Your task to perform on an android device: see sites visited before in the chrome app Image 0: 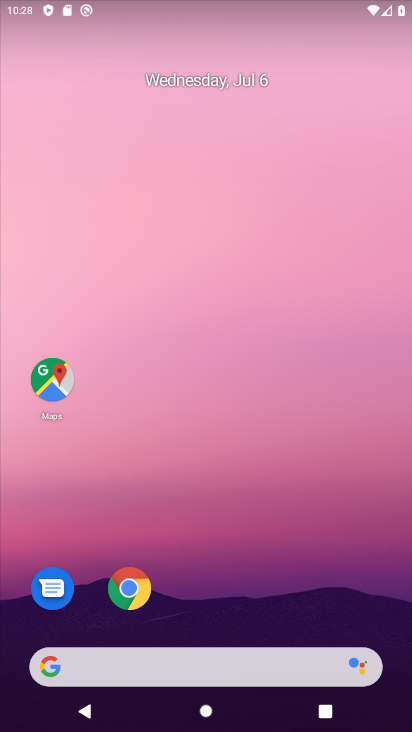
Step 0: click (96, 185)
Your task to perform on an android device: see sites visited before in the chrome app Image 1: 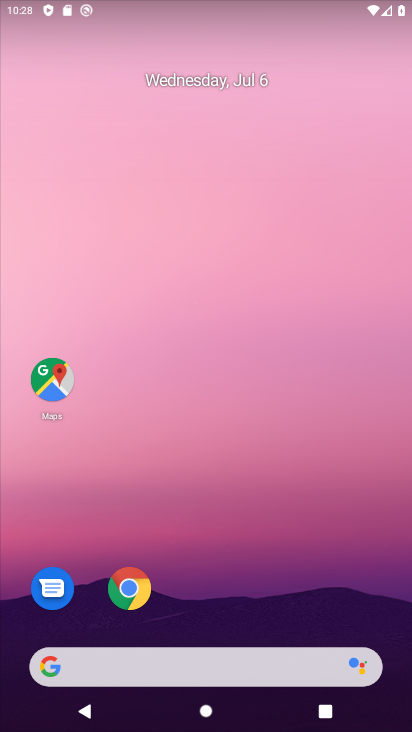
Step 1: drag from (311, 639) to (77, 14)
Your task to perform on an android device: see sites visited before in the chrome app Image 2: 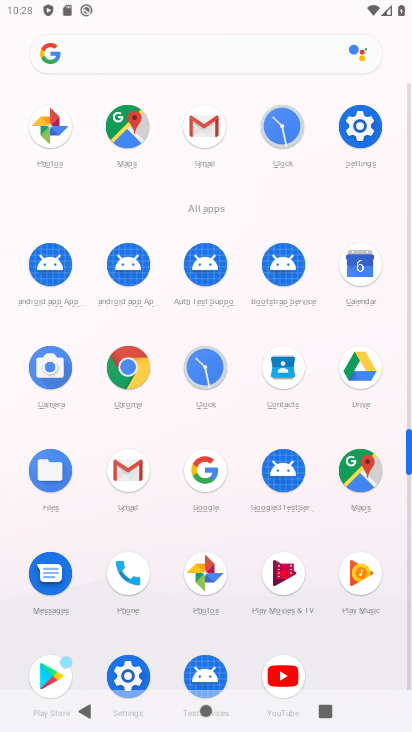
Step 2: drag from (213, 486) to (159, 238)
Your task to perform on an android device: see sites visited before in the chrome app Image 3: 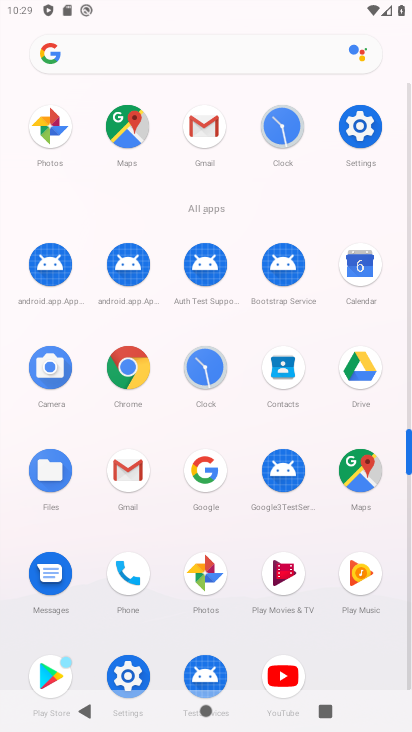
Step 3: click (127, 378)
Your task to perform on an android device: see sites visited before in the chrome app Image 4: 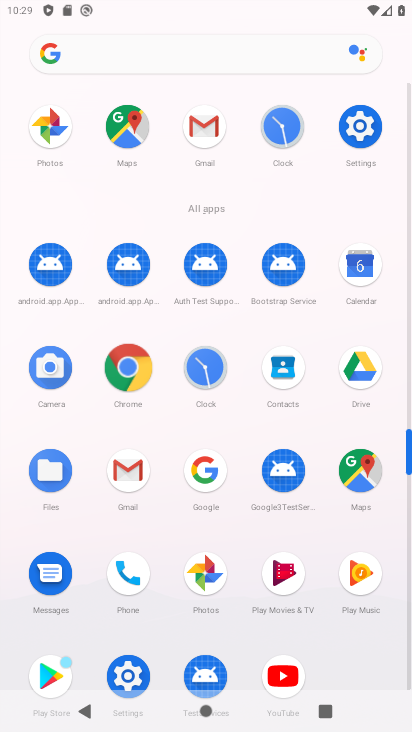
Step 4: click (123, 374)
Your task to perform on an android device: see sites visited before in the chrome app Image 5: 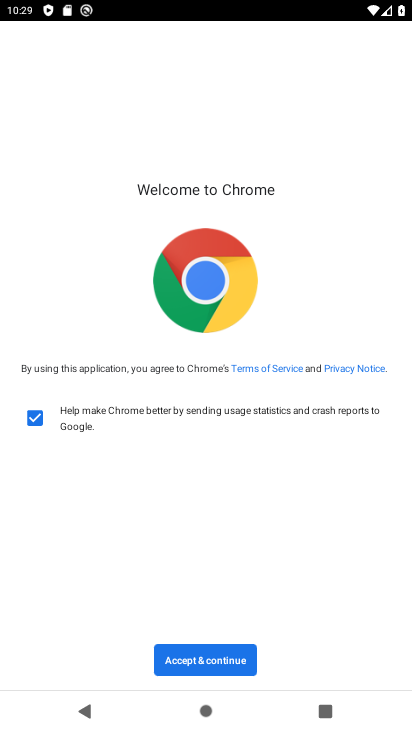
Step 5: click (211, 658)
Your task to perform on an android device: see sites visited before in the chrome app Image 6: 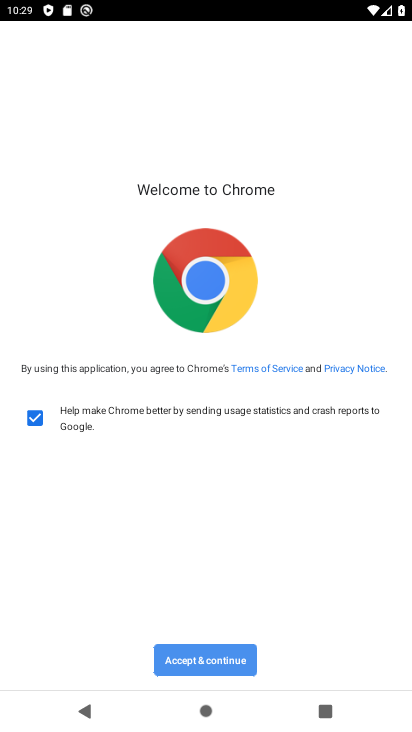
Step 6: click (214, 657)
Your task to perform on an android device: see sites visited before in the chrome app Image 7: 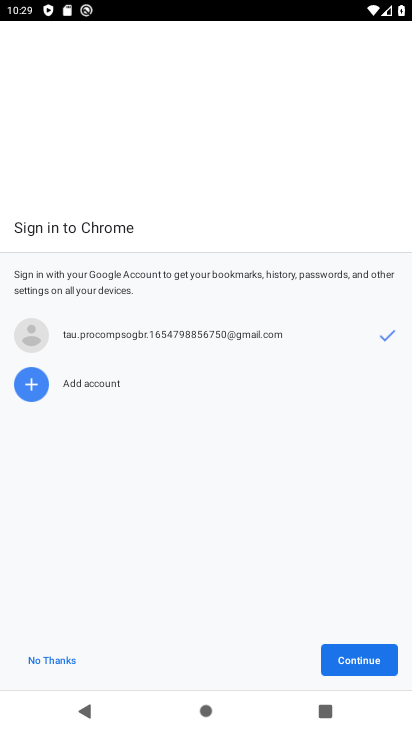
Step 7: click (372, 657)
Your task to perform on an android device: see sites visited before in the chrome app Image 8: 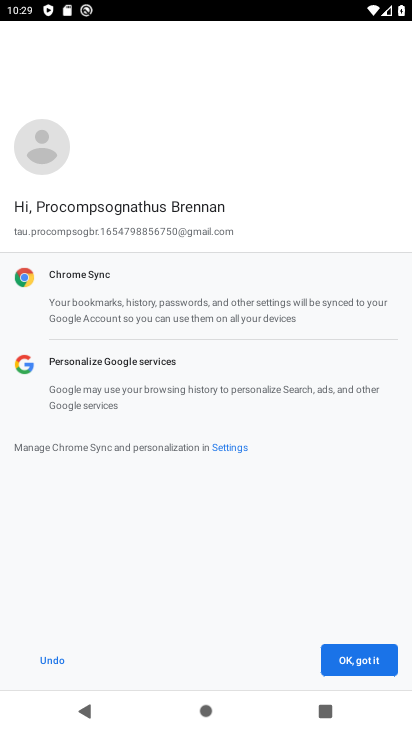
Step 8: click (369, 621)
Your task to perform on an android device: see sites visited before in the chrome app Image 9: 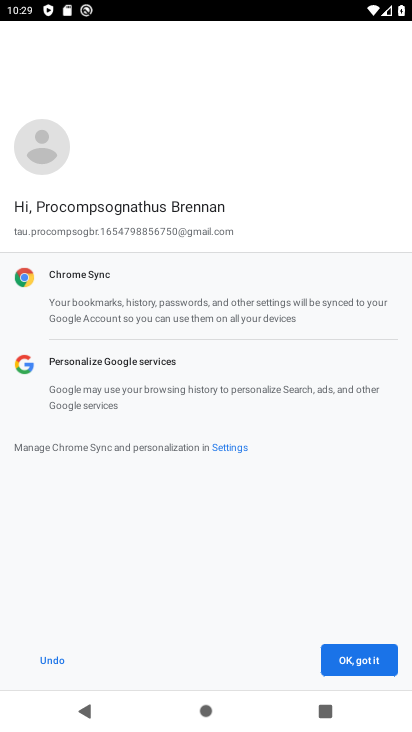
Step 9: click (366, 663)
Your task to perform on an android device: see sites visited before in the chrome app Image 10: 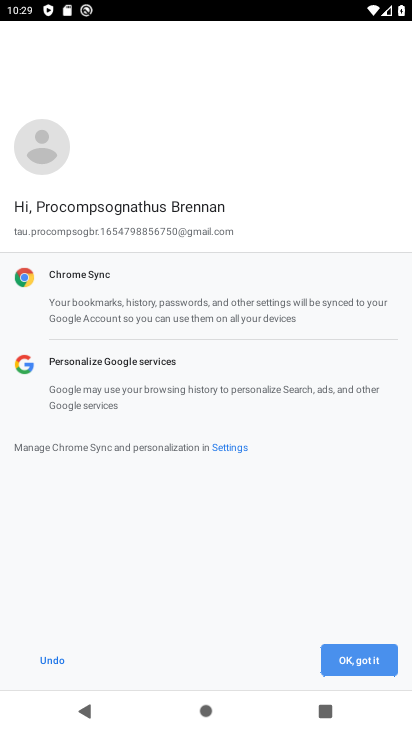
Step 10: click (366, 662)
Your task to perform on an android device: see sites visited before in the chrome app Image 11: 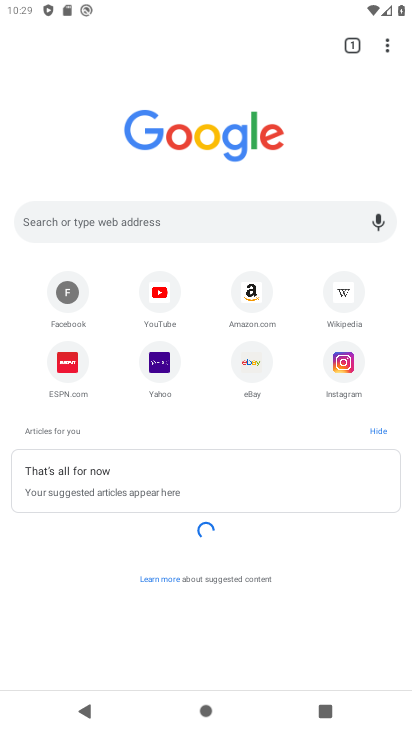
Step 11: drag from (388, 48) to (233, 219)
Your task to perform on an android device: see sites visited before in the chrome app Image 12: 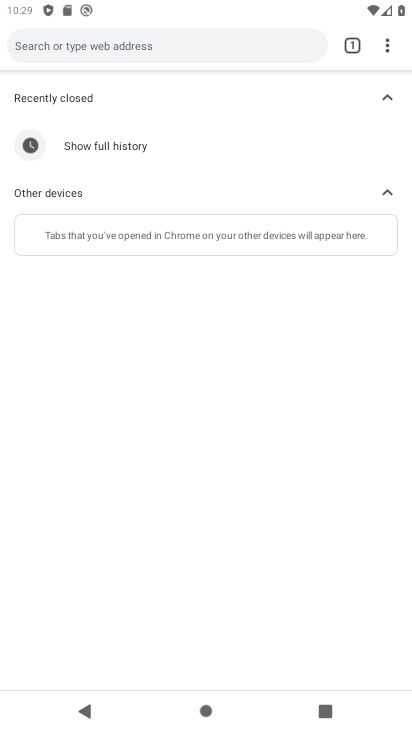
Step 12: click (233, 219)
Your task to perform on an android device: see sites visited before in the chrome app Image 13: 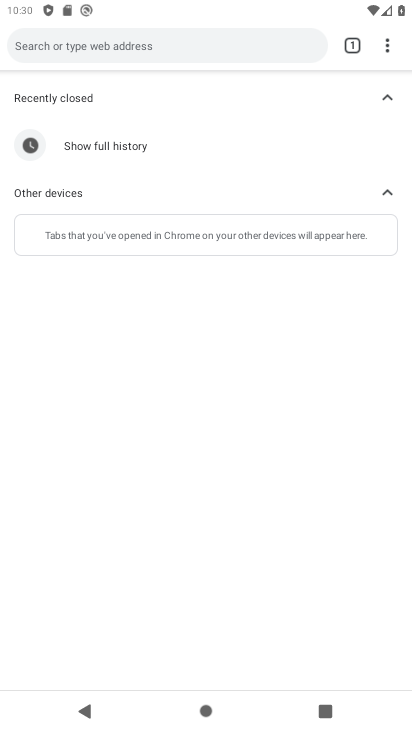
Step 13: click (117, 141)
Your task to perform on an android device: see sites visited before in the chrome app Image 14: 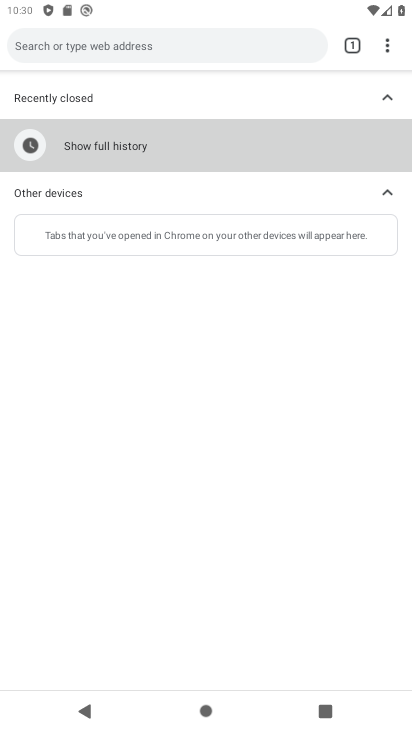
Step 14: click (117, 141)
Your task to perform on an android device: see sites visited before in the chrome app Image 15: 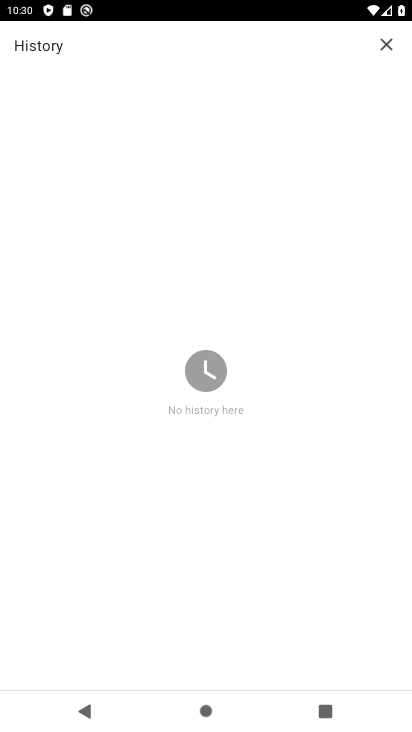
Step 15: press back button
Your task to perform on an android device: see sites visited before in the chrome app Image 16: 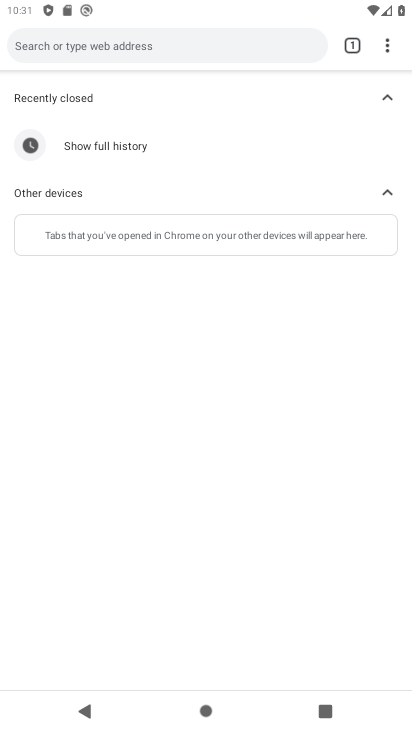
Step 16: press back button
Your task to perform on an android device: see sites visited before in the chrome app Image 17: 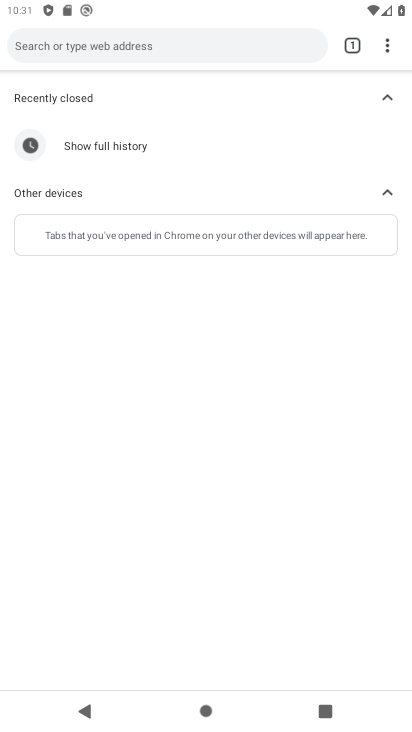
Step 17: press back button
Your task to perform on an android device: see sites visited before in the chrome app Image 18: 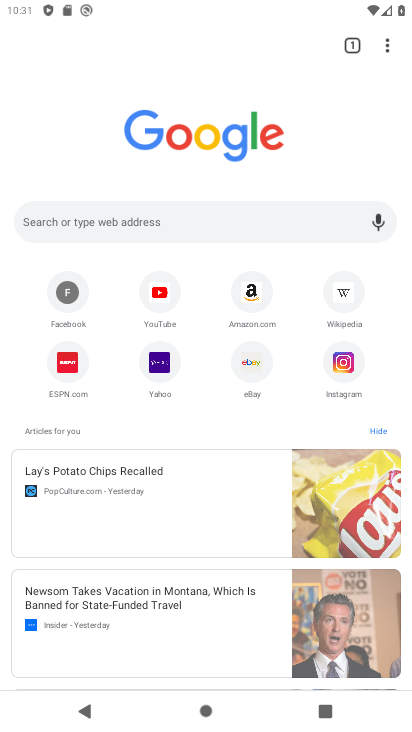
Step 18: press back button
Your task to perform on an android device: see sites visited before in the chrome app Image 19: 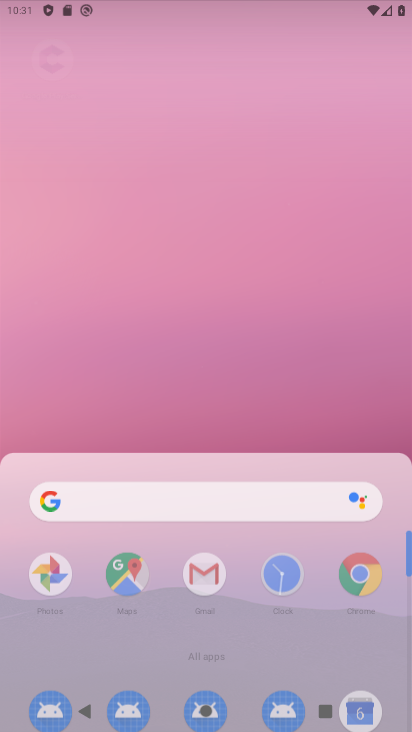
Step 19: press back button
Your task to perform on an android device: see sites visited before in the chrome app Image 20: 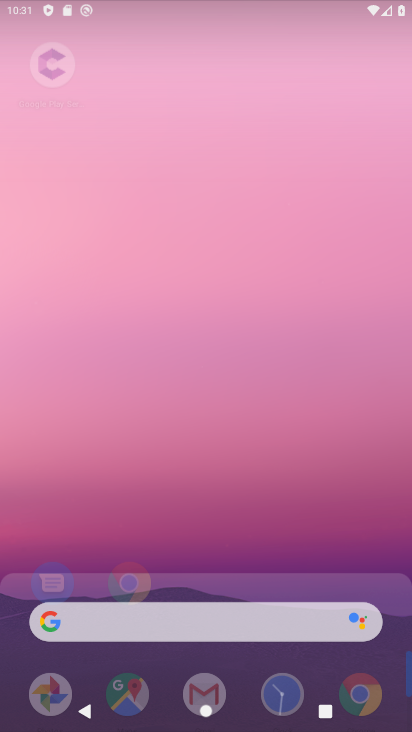
Step 20: press home button
Your task to perform on an android device: see sites visited before in the chrome app Image 21: 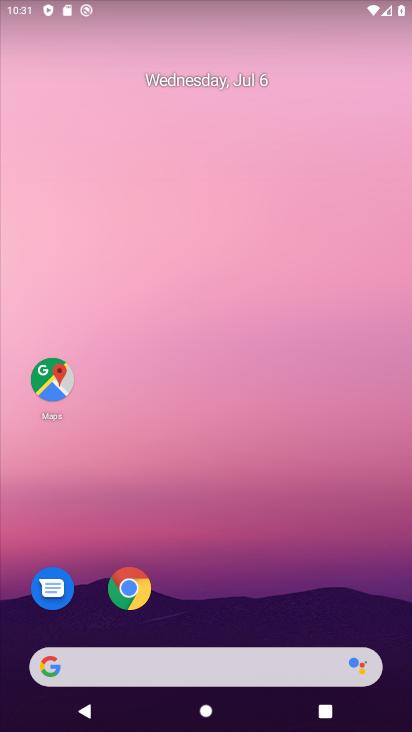
Step 21: drag from (326, 677) to (115, 116)
Your task to perform on an android device: see sites visited before in the chrome app Image 22: 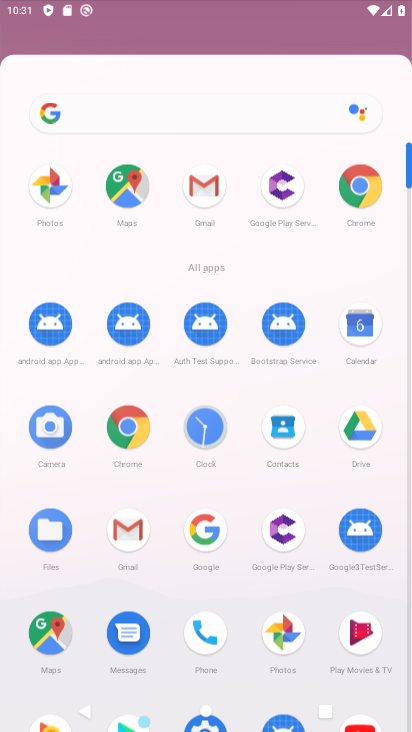
Step 22: click (95, 49)
Your task to perform on an android device: see sites visited before in the chrome app Image 23: 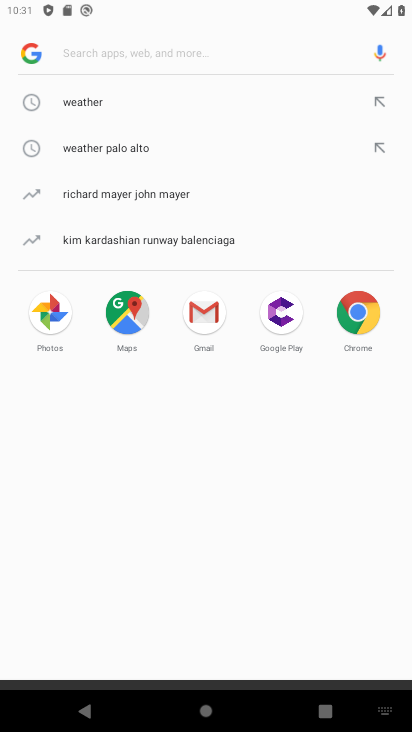
Step 23: press back button
Your task to perform on an android device: see sites visited before in the chrome app Image 24: 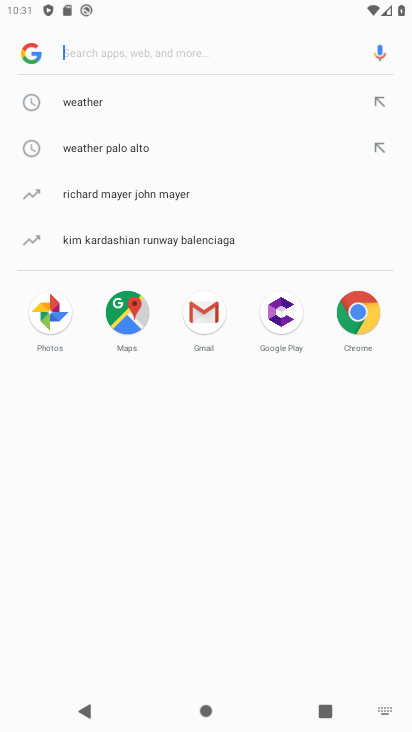
Step 24: press back button
Your task to perform on an android device: see sites visited before in the chrome app Image 25: 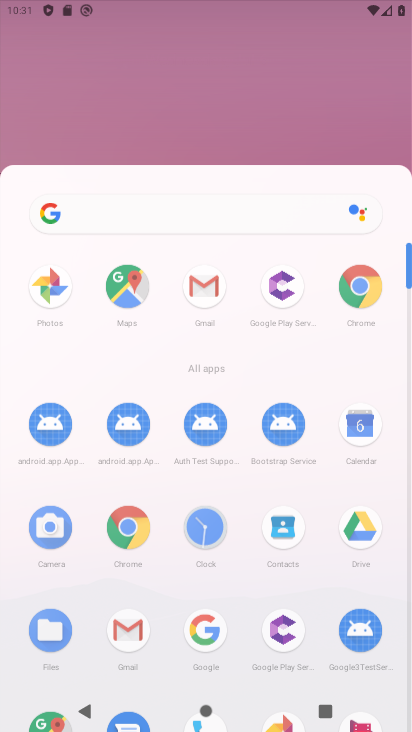
Step 25: press back button
Your task to perform on an android device: see sites visited before in the chrome app Image 26: 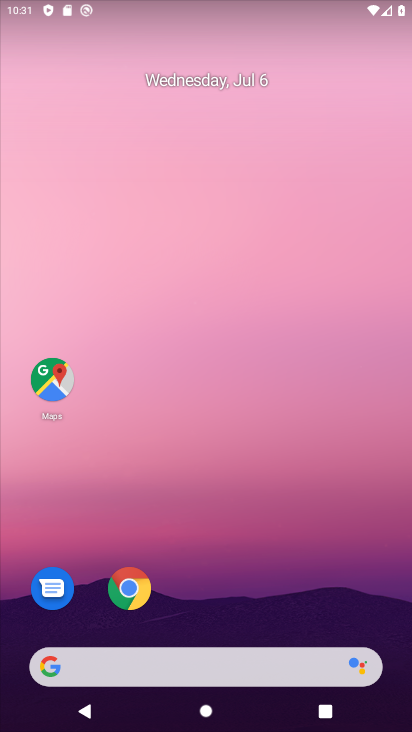
Step 26: drag from (321, 400) to (106, 183)
Your task to perform on an android device: see sites visited before in the chrome app Image 27: 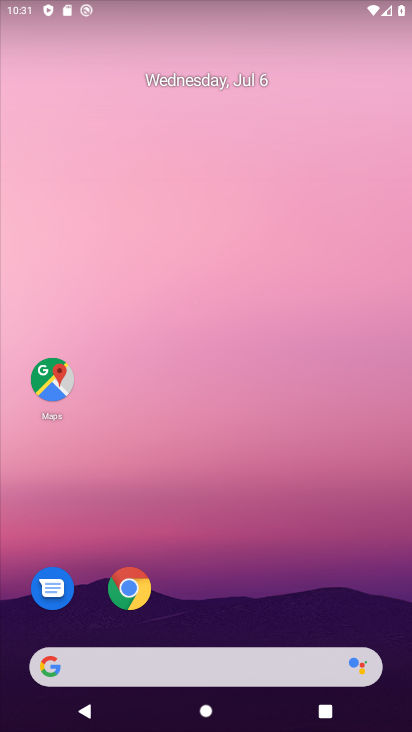
Step 27: drag from (289, 573) to (80, 82)
Your task to perform on an android device: see sites visited before in the chrome app Image 28: 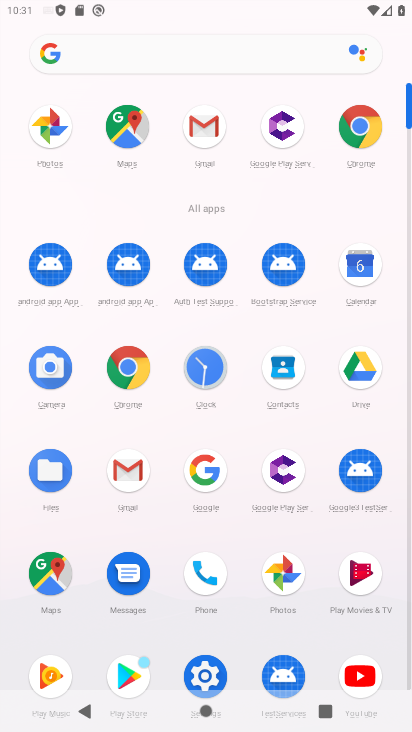
Step 28: click (138, 371)
Your task to perform on an android device: see sites visited before in the chrome app Image 29: 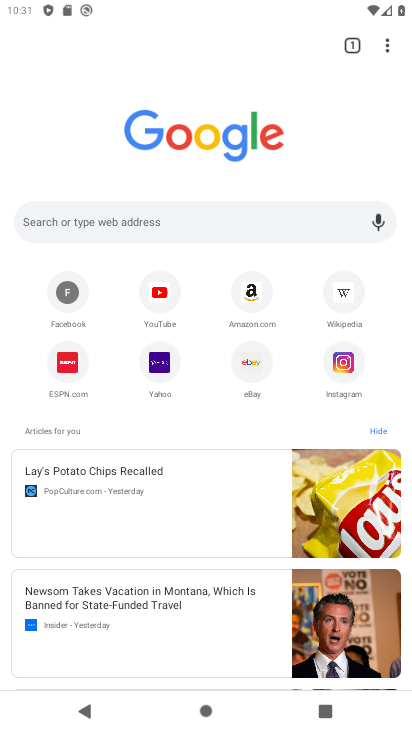
Step 29: drag from (386, 37) to (209, 211)
Your task to perform on an android device: see sites visited before in the chrome app Image 30: 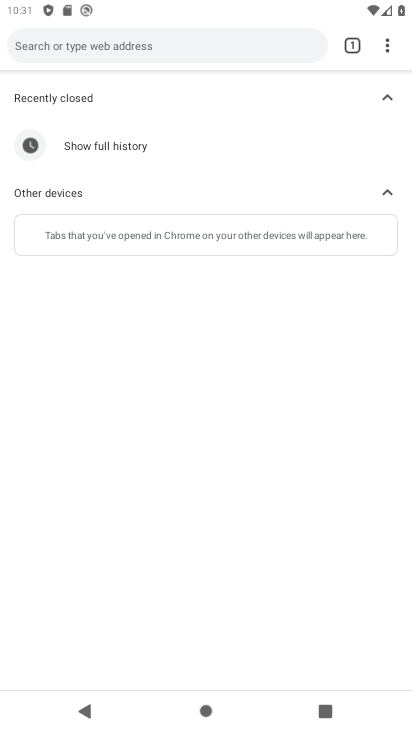
Step 30: click (209, 211)
Your task to perform on an android device: see sites visited before in the chrome app Image 31: 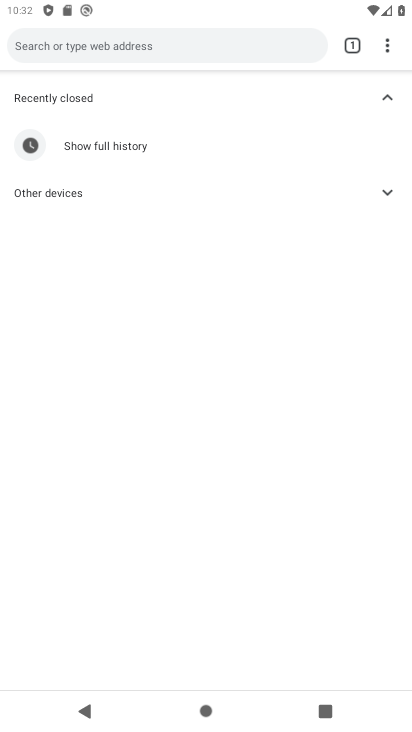
Step 31: click (381, 194)
Your task to perform on an android device: see sites visited before in the chrome app Image 32: 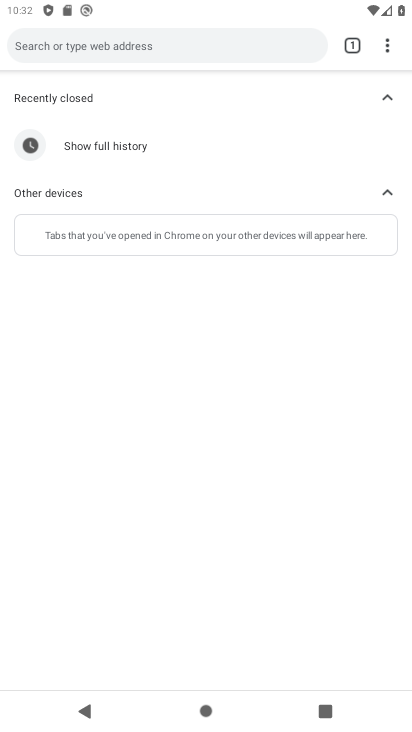
Step 32: click (390, 97)
Your task to perform on an android device: see sites visited before in the chrome app Image 33: 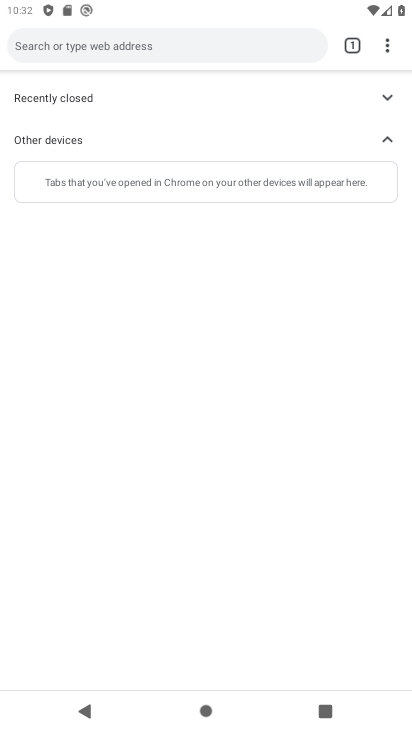
Step 33: click (390, 97)
Your task to perform on an android device: see sites visited before in the chrome app Image 34: 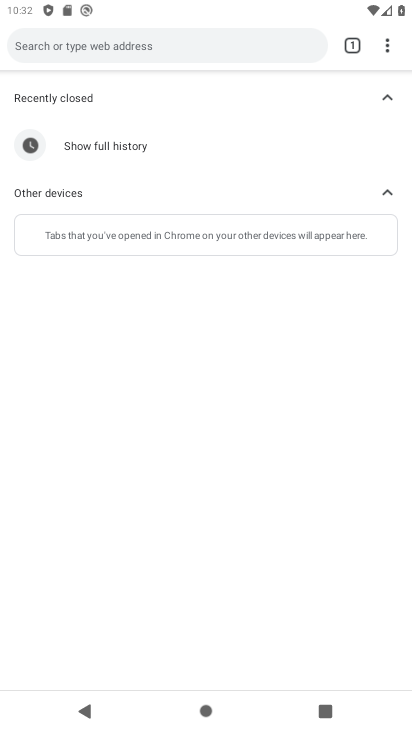
Step 34: task complete